Your task to perform on an android device: change text size in settings app Image 0: 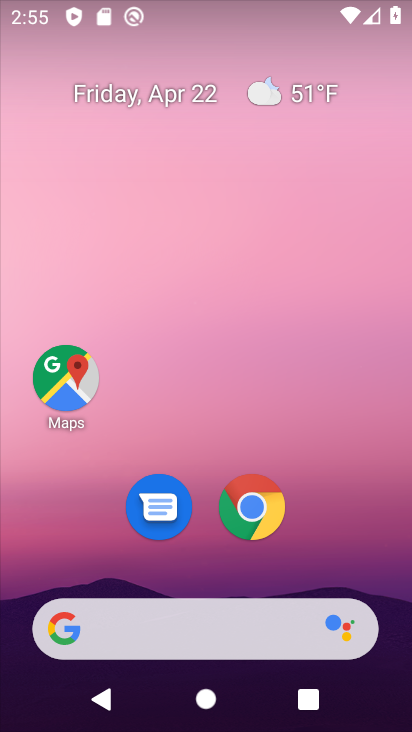
Step 0: drag from (218, 579) to (215, 40)
Your task to perform on an android device: change text size in settings app Image 1: 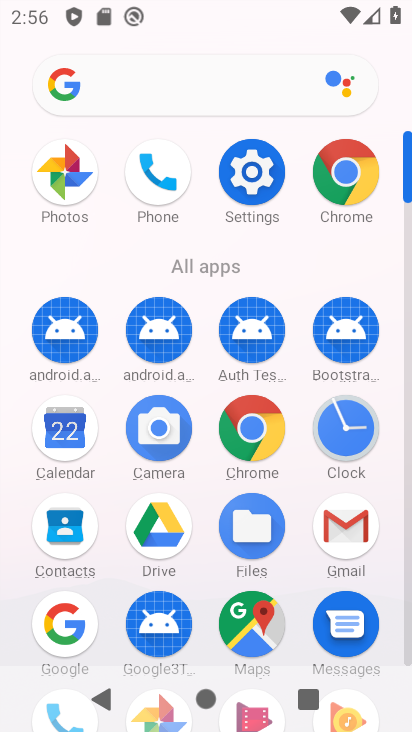
Step 1: click (258, 182)
Your task to perform on an android device: change text size in settings app Image 2: 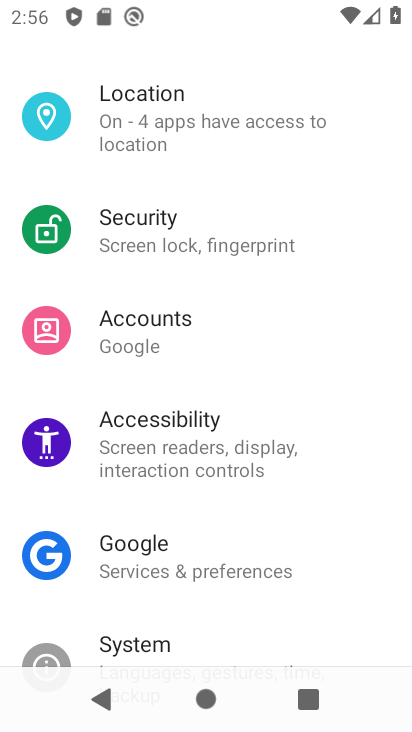
Step 2: drag from (260, 173) to (253, 627)
Your task to perform on an android device: change text size in settings app Image 3: 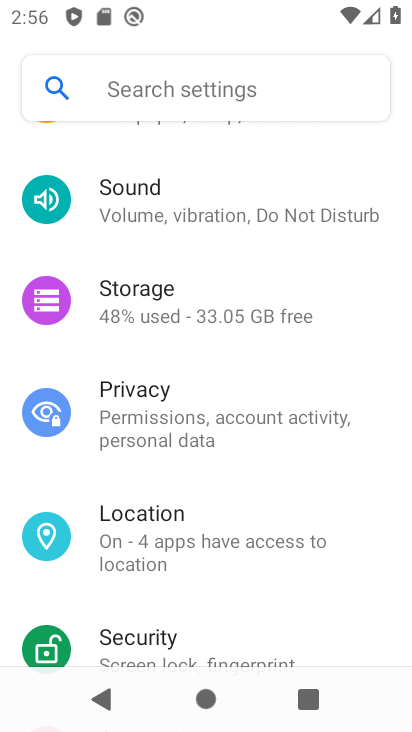
Step 3: drag from (165, 199) to (164, 609)
Your task to perform on an android device: change text size in settings app Image 4: 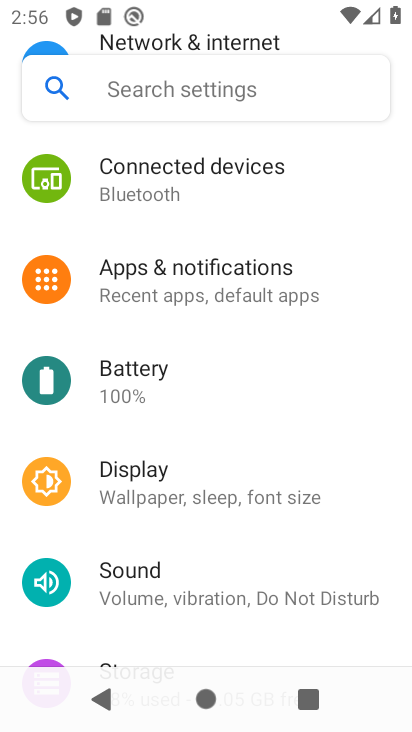
Step 4: click (152, 477)
Your task to perform on an android device: change text size in settings app Image 5: 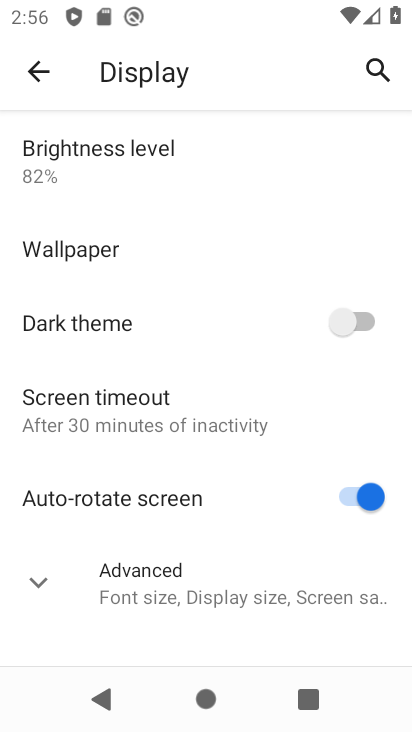
Step 5: click (161, 588)
Your task to perform on an android device: change text size in settings app Image 6: 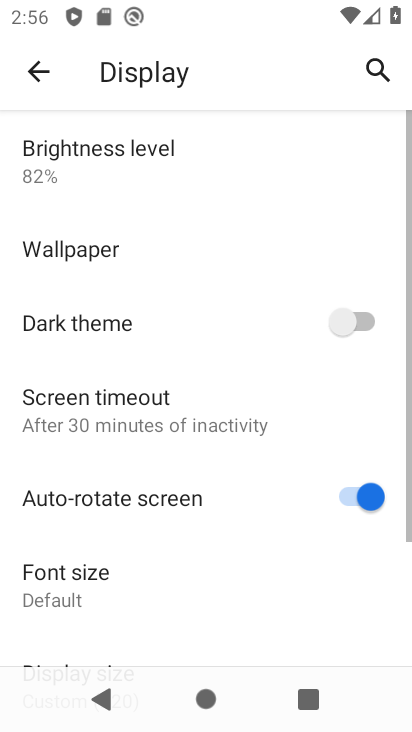
Step 6: drag from (168, 582) to (172, 133)
Your task to perform on an android device: change text size in settings app Image 7: 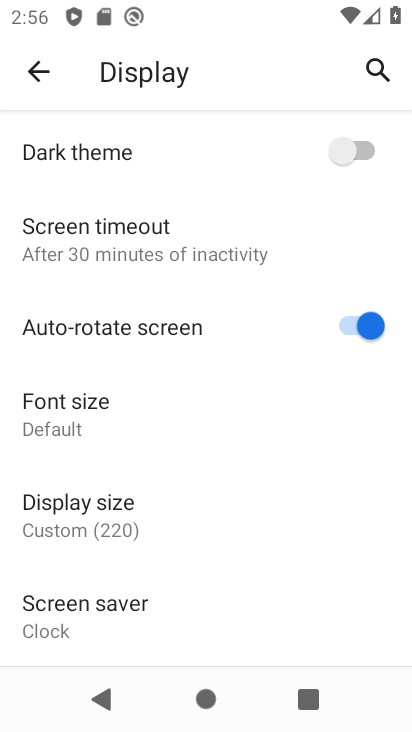
Step 7: click (98, 421)
Your task to perform on an android device: change text size in settings app Image 8: 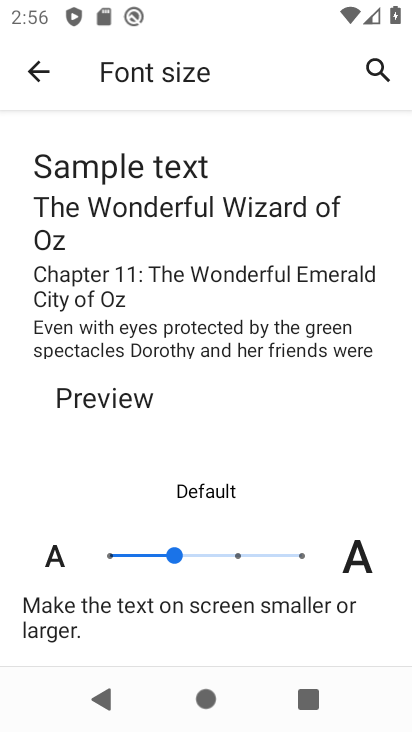
Step 8: click (237, 561)
Your task to perform on an android device: change text size in settings app Image 9: 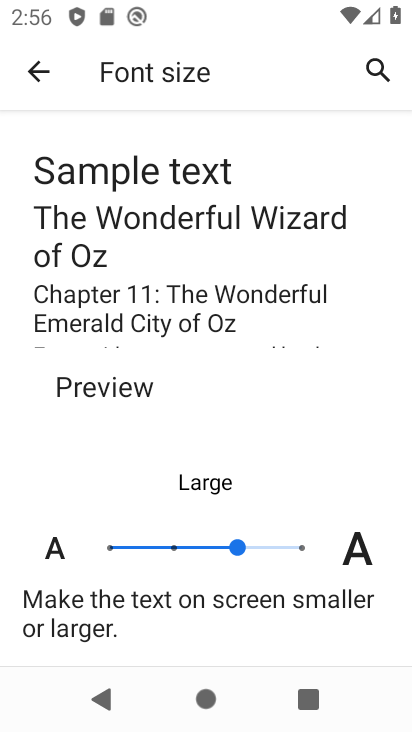
Step 9: task complete